Your task to perform on an android device: turn off sleep mode Image 0: 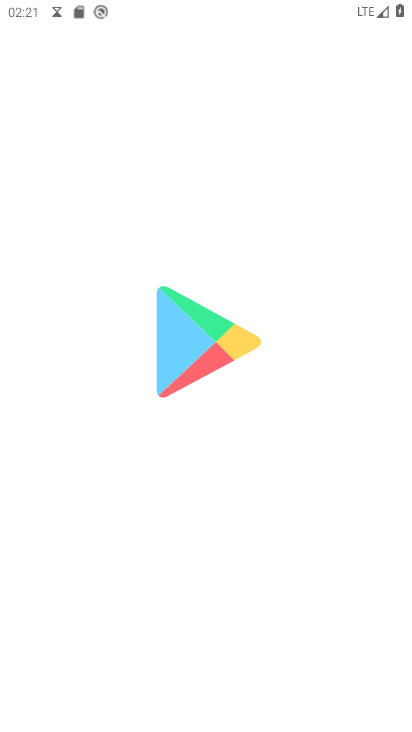
Step 0: drag from (283, 623) to (254, 314)
Your task to perform on an android device: turn off sleep mode Image 1: 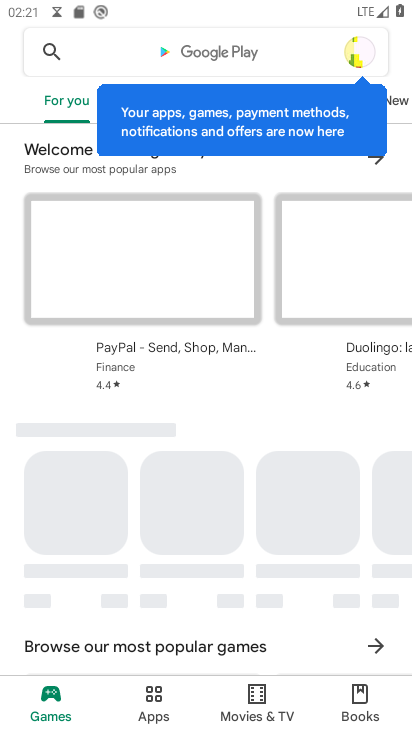
Step 1: press home button
Your task to perform on an android device: turn off sleep mode Image 2: 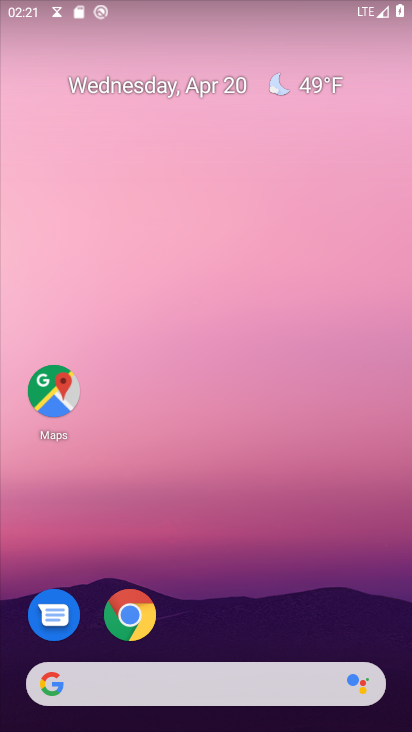
Step 2: drag from (282, 564) to (292, 137)
Your task to perform on an android device: turn off sleep mode Image 3: 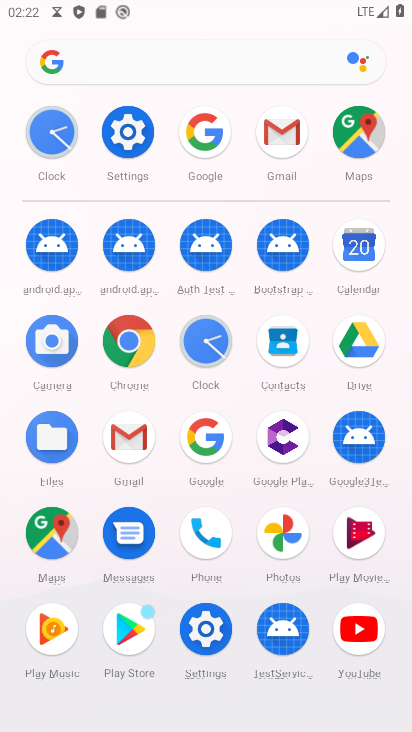
Step 3: click (227, 632)
Your task to perform on an android device: turn off sleep mode Image 4: 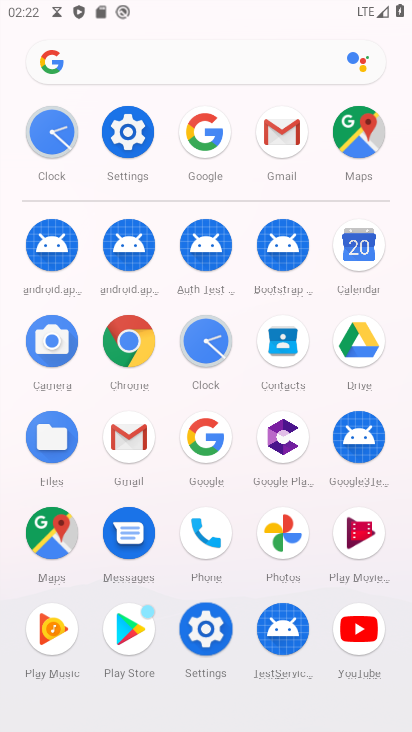
Step 4: click (222, 628)
Your task to perform on an android device: turn off sleep mode Image 5: 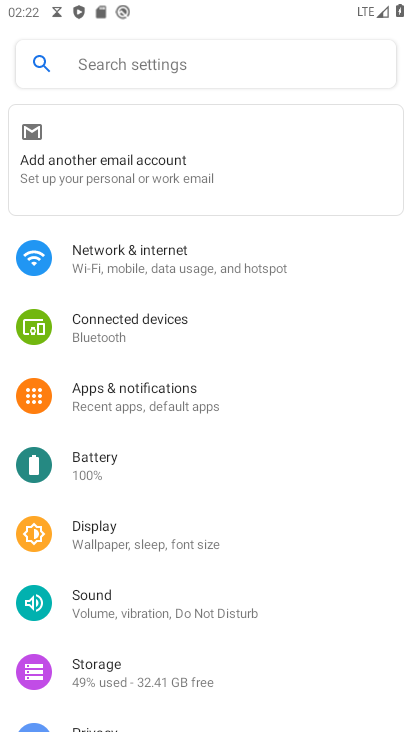
Step 5: task complete